Your task to perform on an android device: Do I have any events this weekend? Image 0: 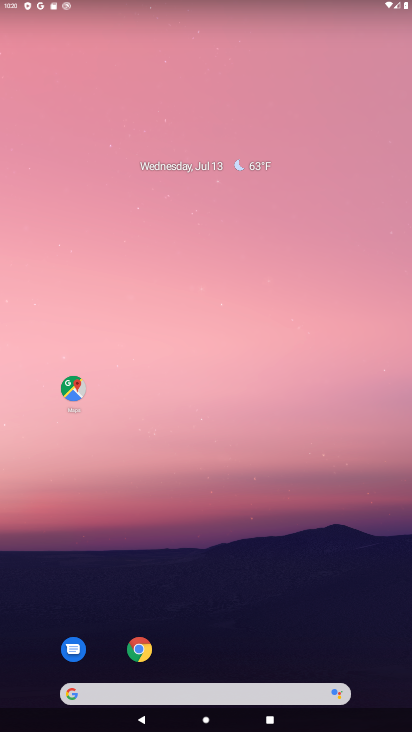
Step 0: drag from (274, 627) to (248, 242)
Your task to perform on an android device: Do I have any events this weekend? Image 1: 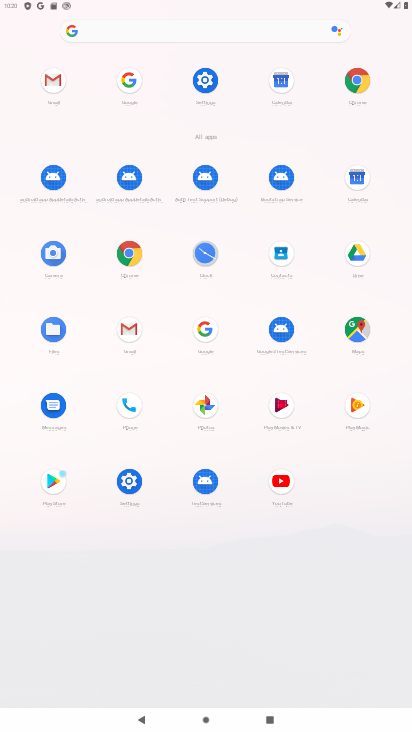
Step 1: click (354, 176)
Your task to perform on an android device: Do I have any events this weekend? Image 2: 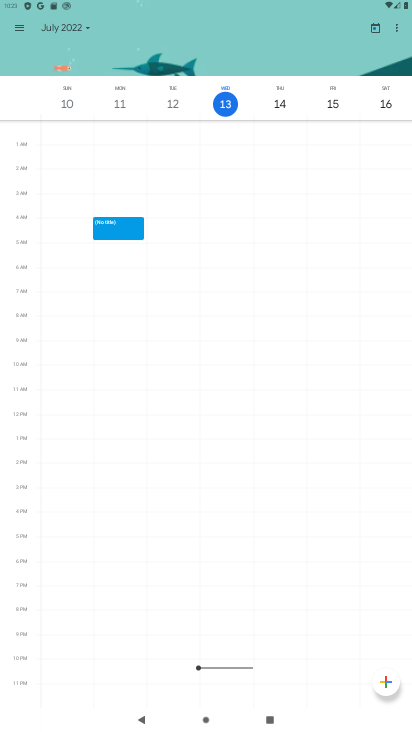
Step 2: task complete